Your task to perform on an android device: uninstall "Google Play Games" Image 0: 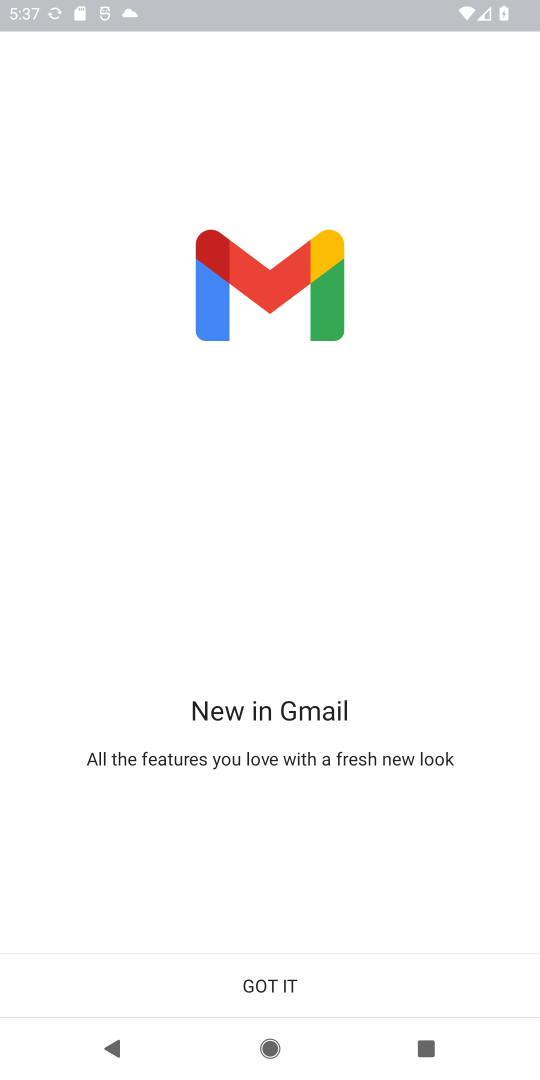
Step 0: press home button
Your task to perform on an android device: uninstall "Google Play Games" Image 1: 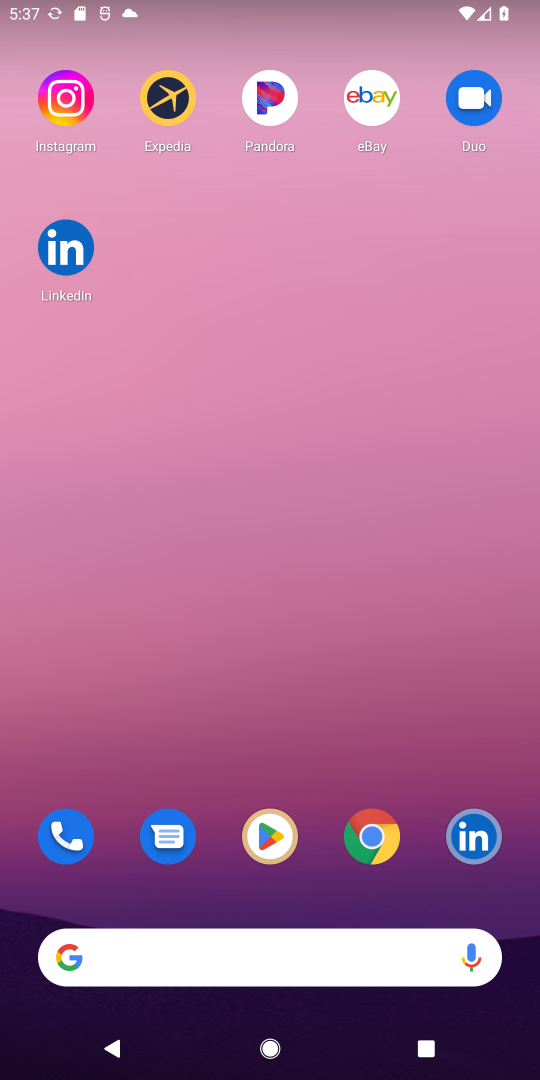
Step 1: click (273, 833)
Your task to perform on an android device: uninstall "Google Play Games" Image 2: 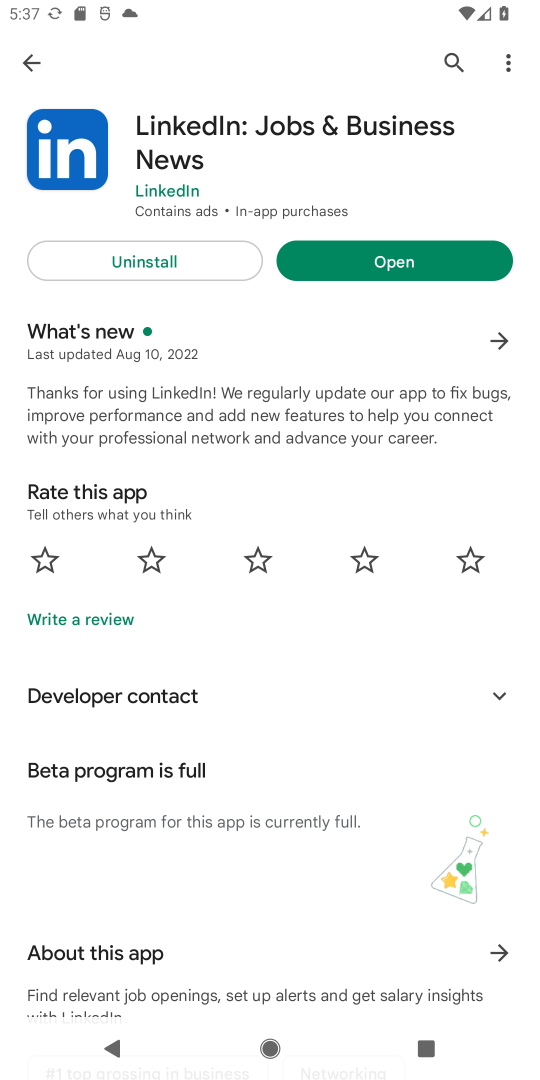
Step 2: click (448, 63)
Your task to perform on an android device: uninstall "Google Play Games" Image 3: 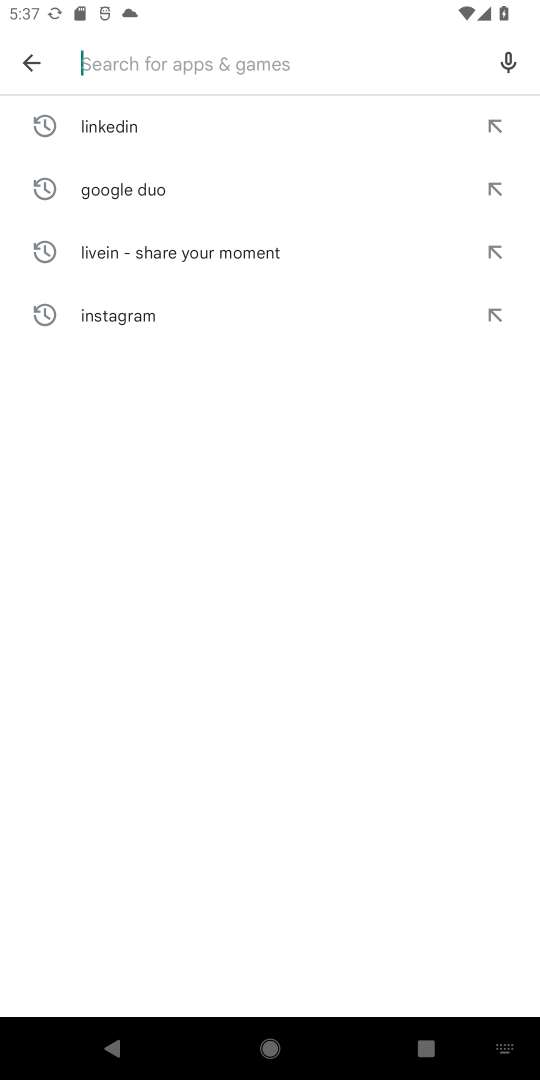
Step 3: type "Google Play Games"
Your task to perform on an android device: uninstall "Google Play Games" Image 4: 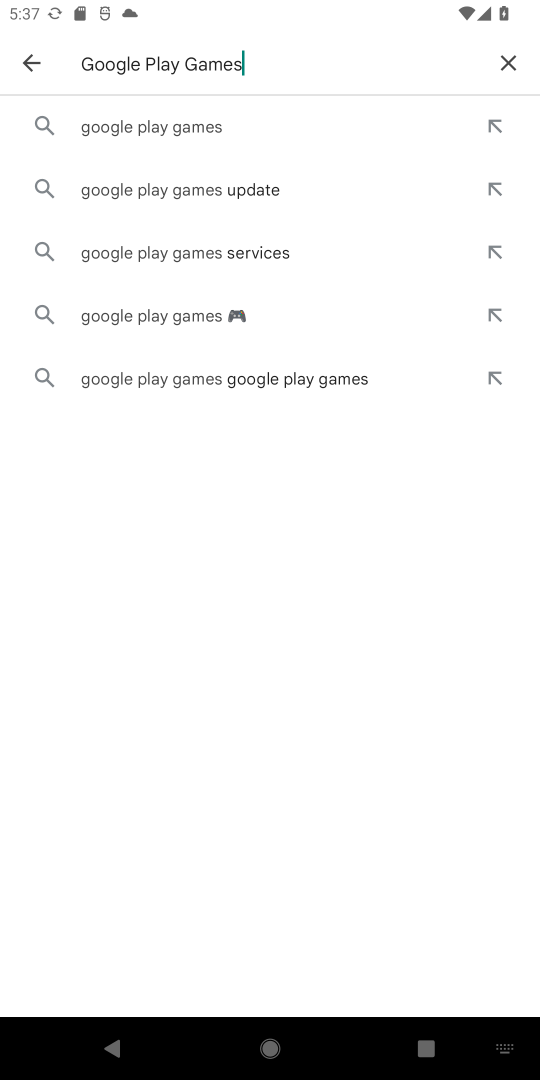
Step 4: click (127, 125)
Your task to perform on an android device: uninstall "Google Play Games" Image 5: 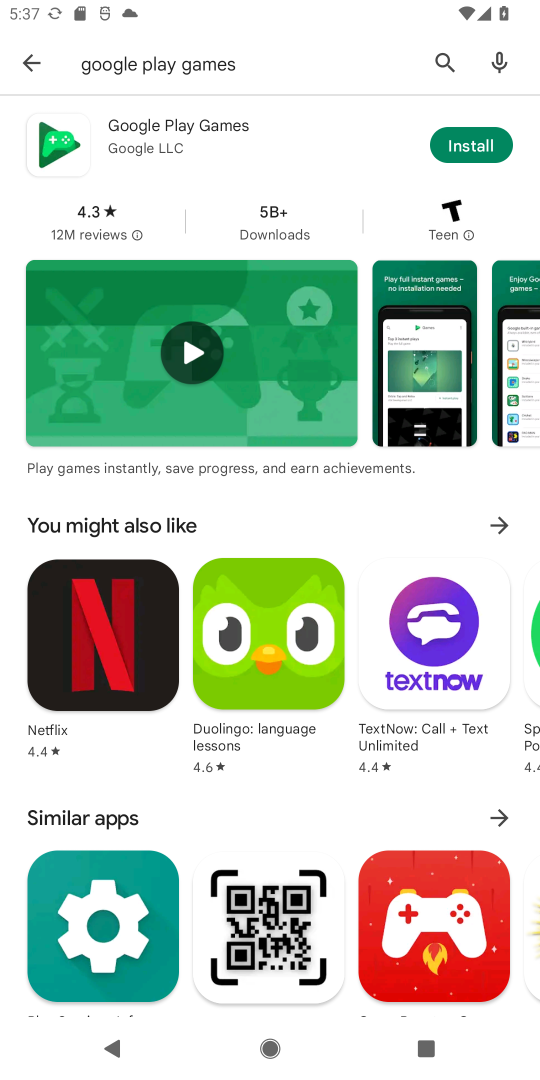
Step 5: task complete